Your task to perform on an android device: open app "DoorDash - Dasher" Image 0: 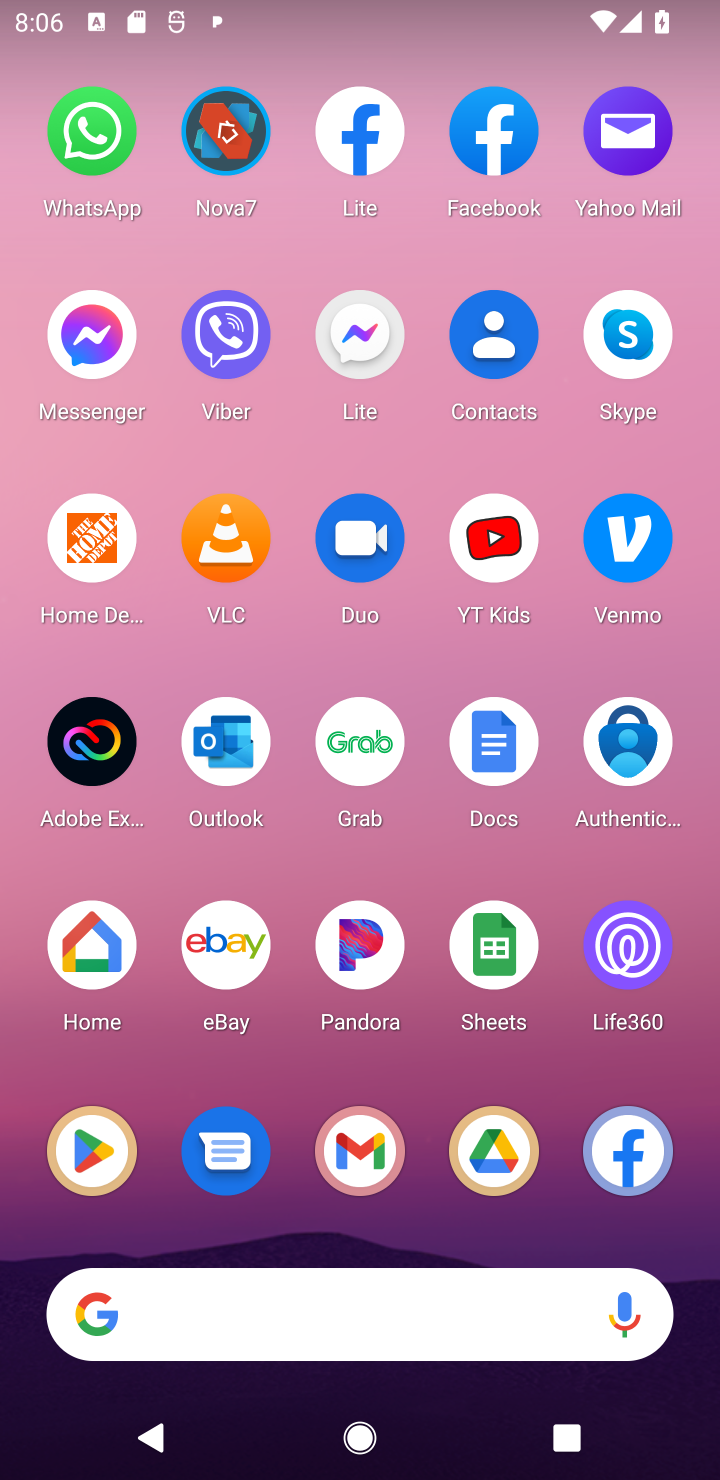
Step 0: click (98, 1165)
Your task to perform on an android device: open app "DoorDash - Dasher" Image 1: 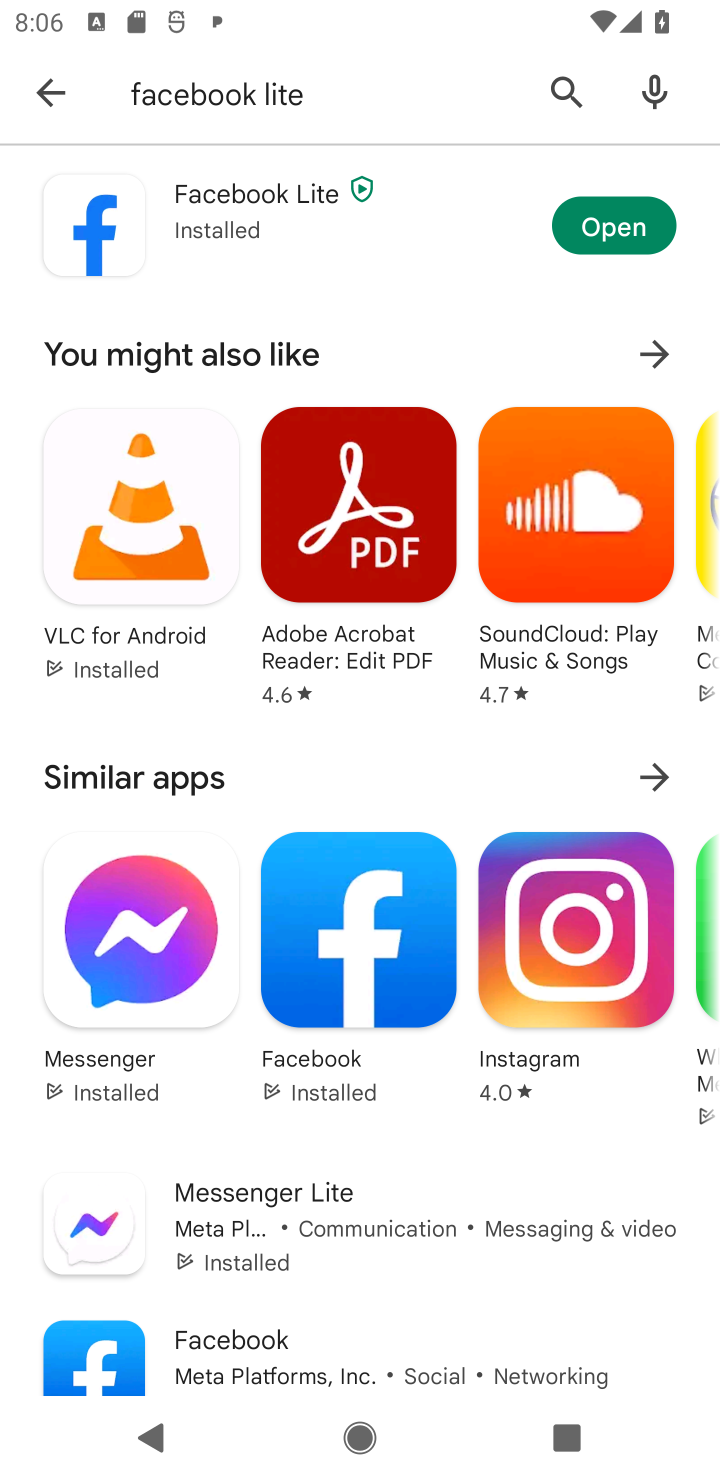
Step 1: click (568, 102)
Your task to perform on an android device: open app "DoorDash - Dasher" Image 2: 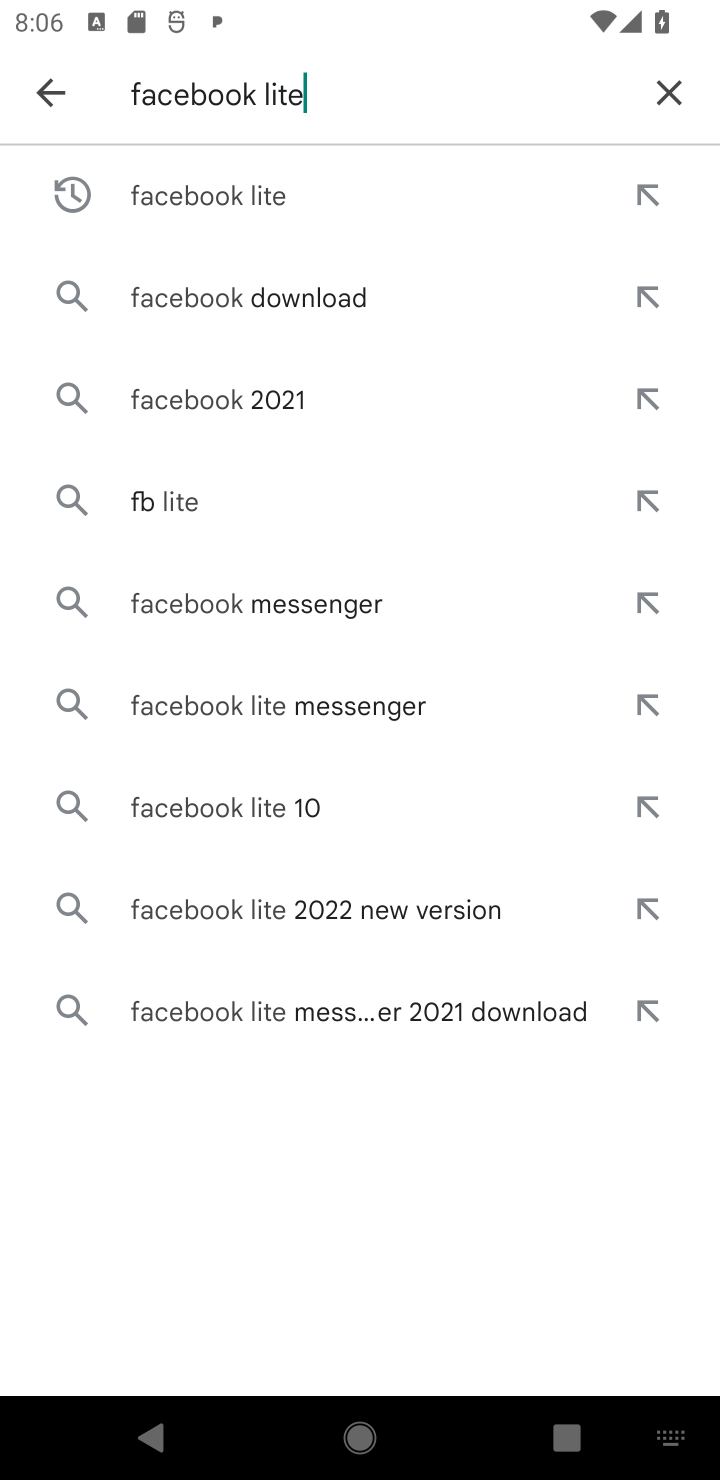
Step 2: click (656, 106)
Your task to perform on an android device: open app "DoorDash - Dasher" Image 3: 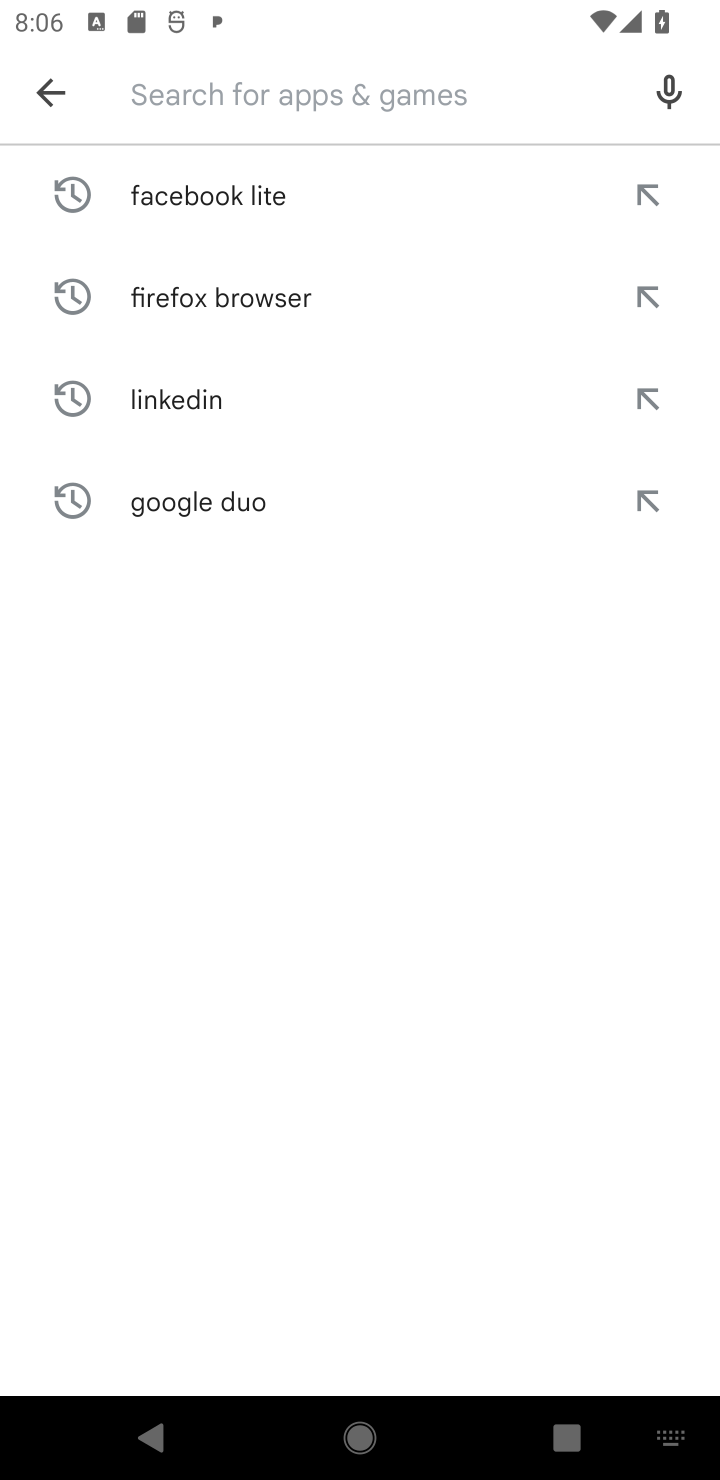
Step 3: type "DoorDash - Dasher"
Your task to perform on an android device: open app "DoorDash - Dasher" Image 4: 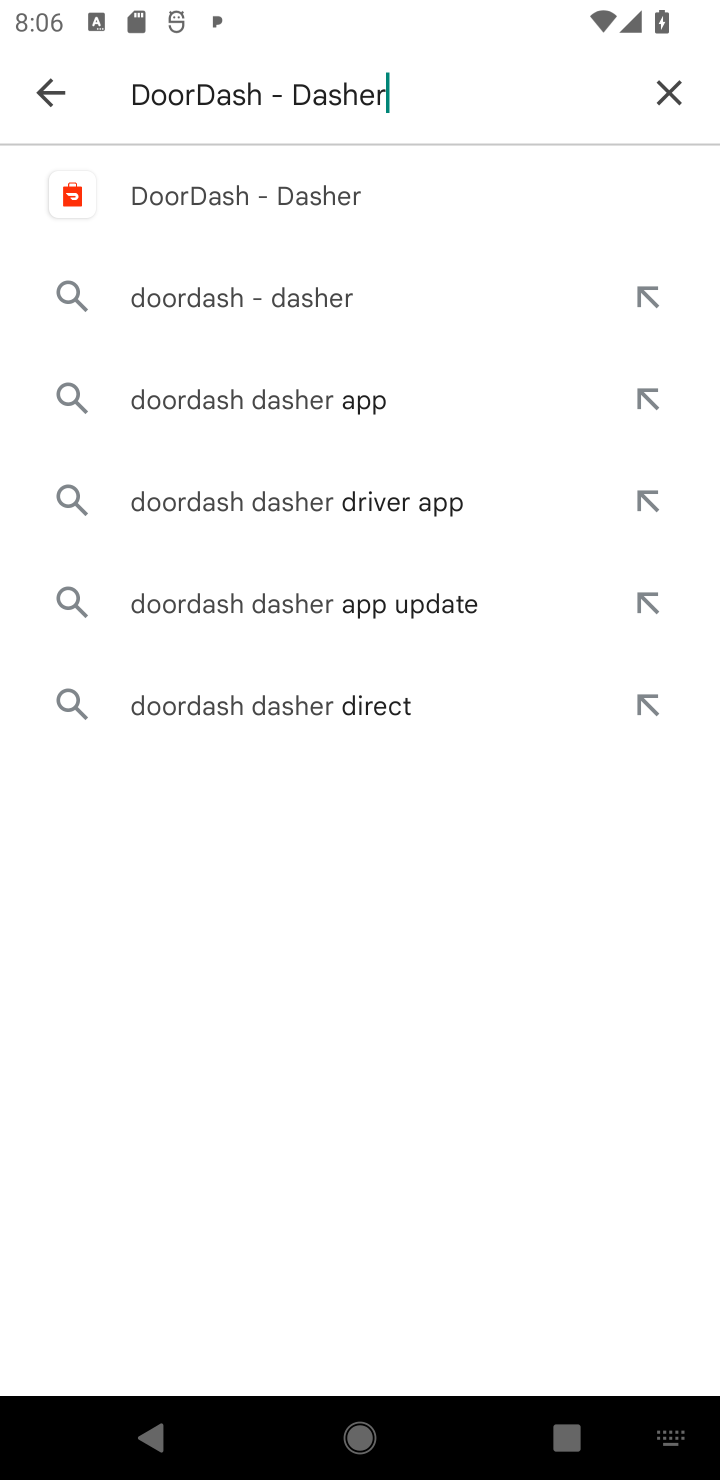
Step 4: click (226, 207)
Your task to perform on an android device: open app "DoorDash - Dasher" Image 5: 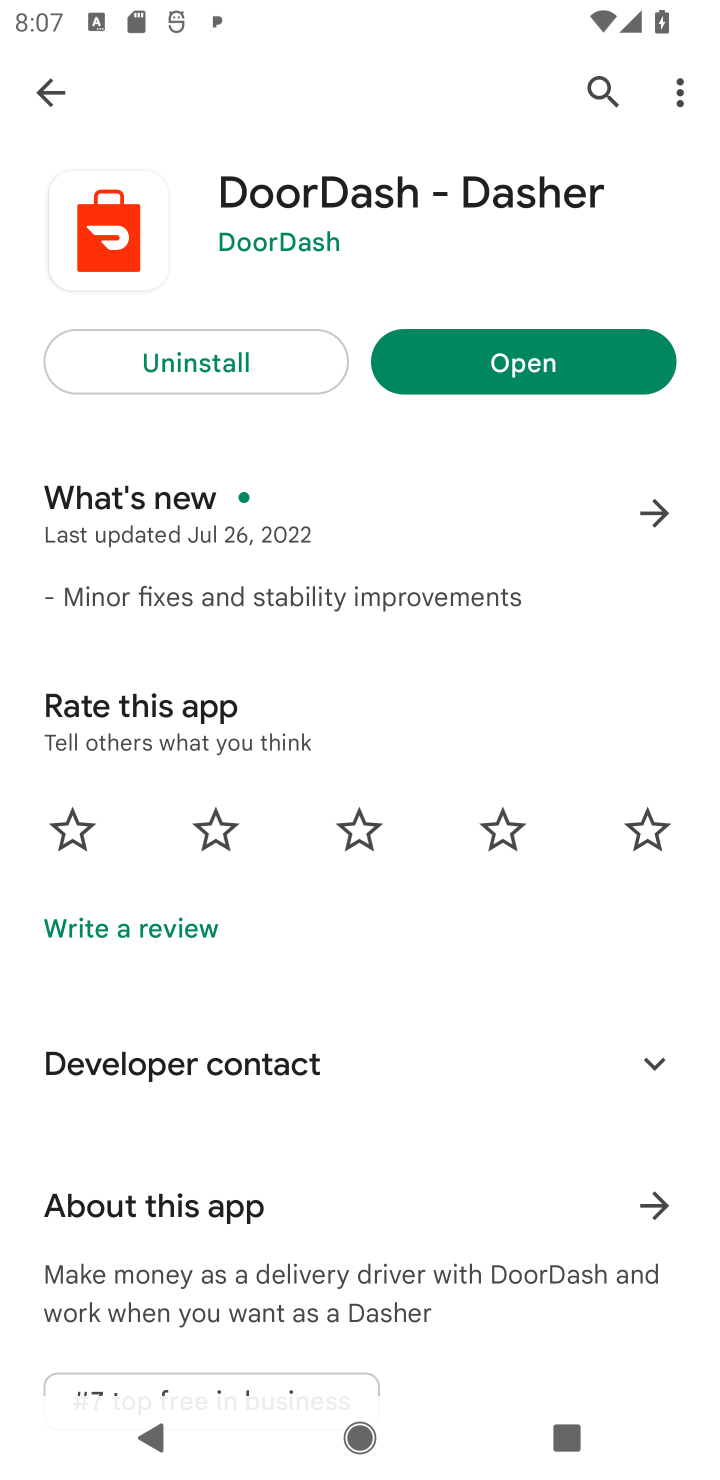
Step 5: click (538, 380)
Your task to perform on an android device: open app "DoorDash - Dasher" Image 6: 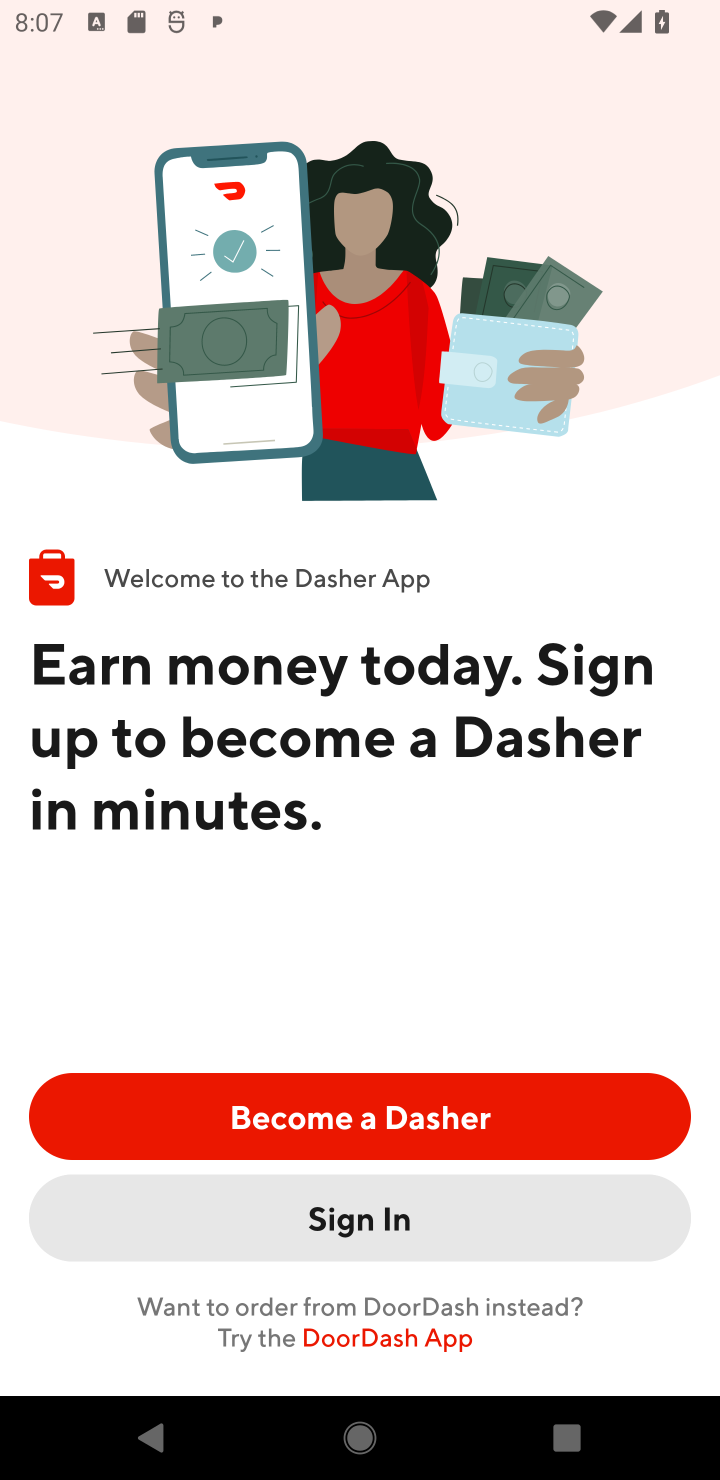
Step 6: task complete